Your task to perform on an android device: Open internet settings Image 0: 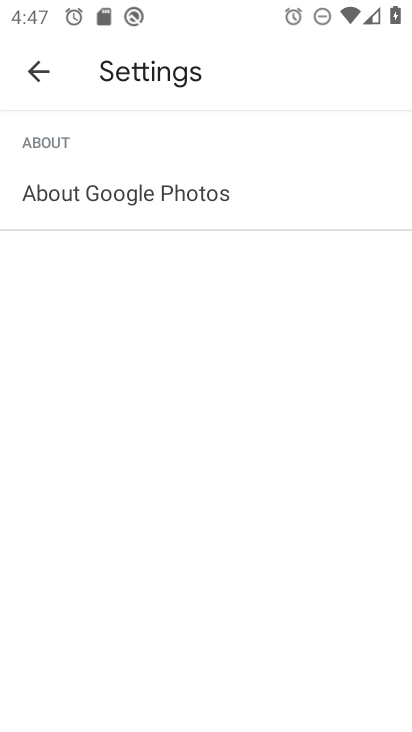
Step 0: press home button
Your task to perform on an android device: Open internet settings Image 1: 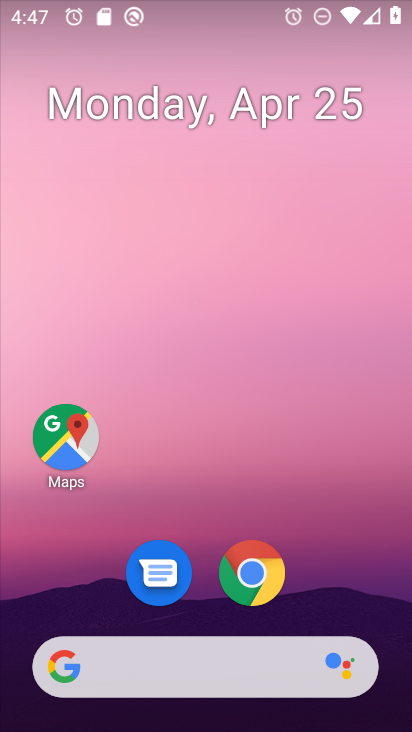
Step 1: drag from (339, 572) to (364, 4)
Your task to perform on an android device: Open internet settings Image 2: 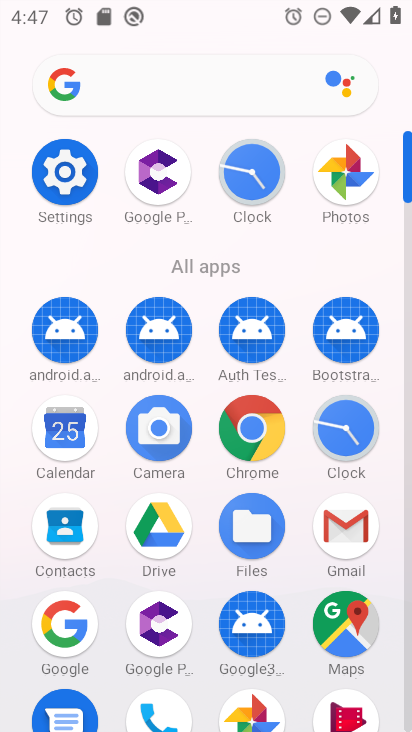
Step 2: click (63, 173)
Your task to perform on an android device: Open internet settings Image 3: 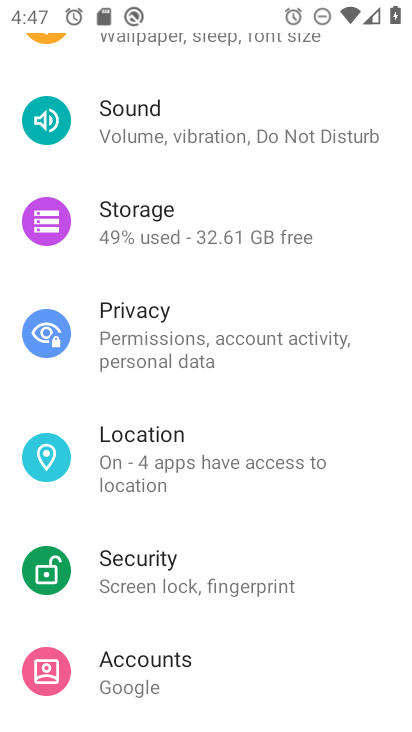
Step 3: drag from (347, 174) to (288, 555)
Your task to perform on an android device: Open internet settings Image 4: 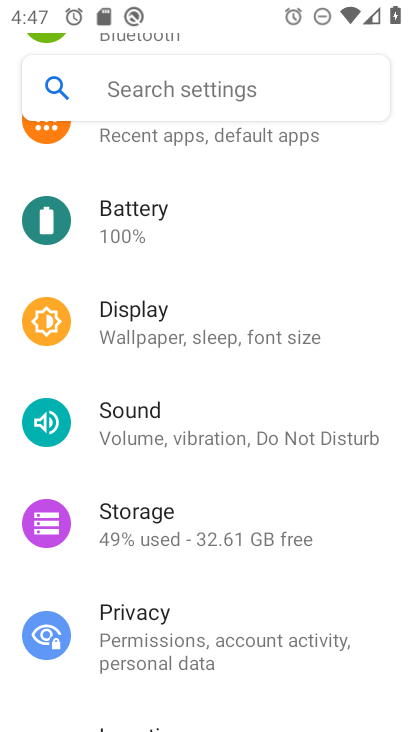
Step 4: drag from (313, 292) to (275, 438)
Your task to perform on an android device: Open internet settings Image 5: 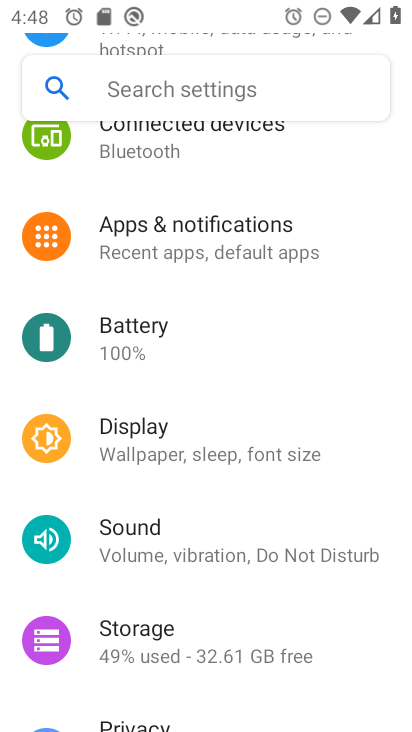
Step 5: drag from (302, 291) to (270, 569)
Your task to perform on an android device: Open internet settings Image 6: 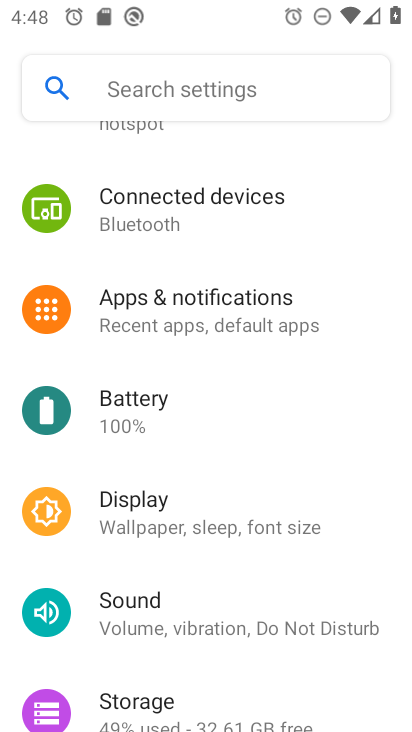
Step 6: drag from (317, 535) to (340, 695)
Your task to perform on an android device: Open internet settings Image 7: 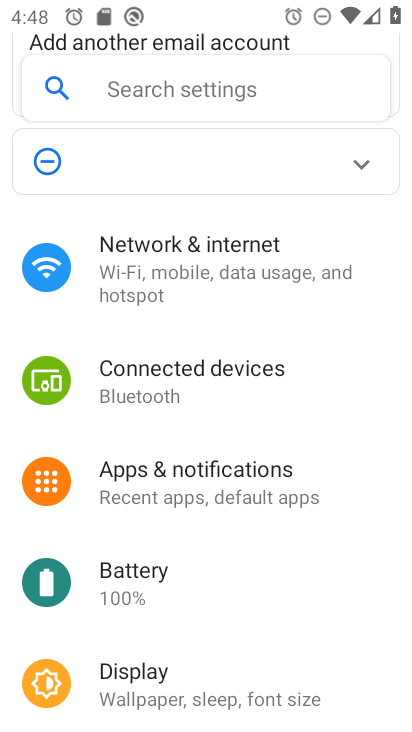
Step 7: click (179, 277)
Your task to perform on an android device: Open internet settings Image 8: 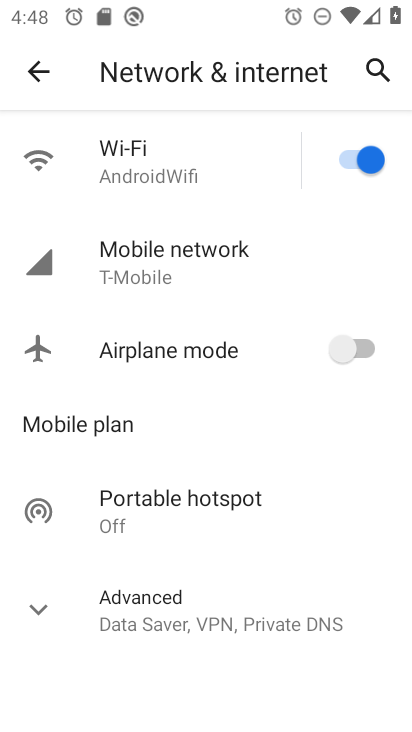
Step 8: drag from (196, 525) to (205, 348)
Your task to perform on an android device: Open internet settings Image 9: 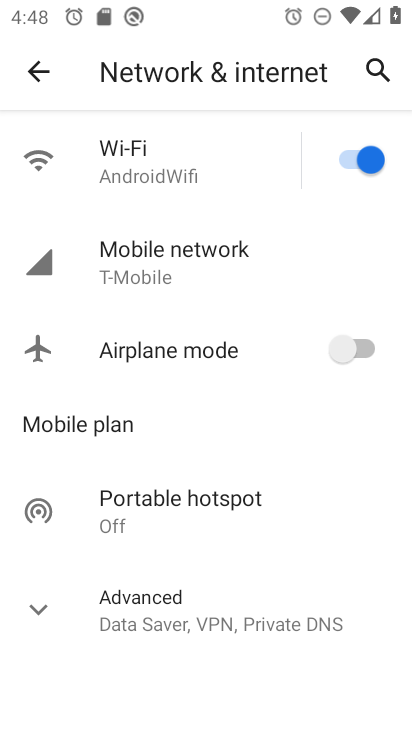
Step 9: click (52, 619)
Your task to perform on an android device: Open internet settings Image 10: 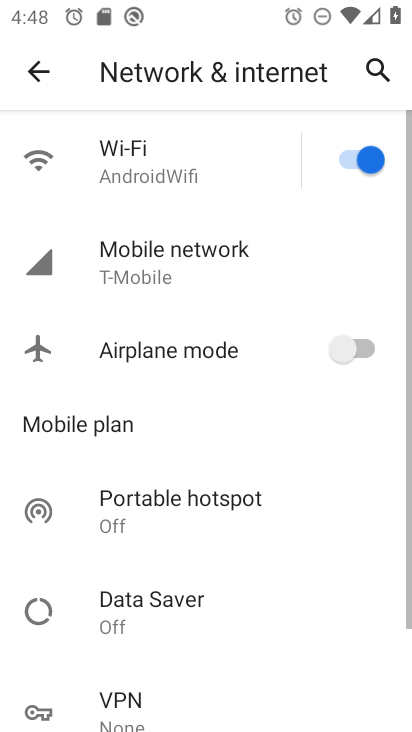
Step 10: task complete